Your task to perform on an android device: Open Chrome and go to settings Image 0: 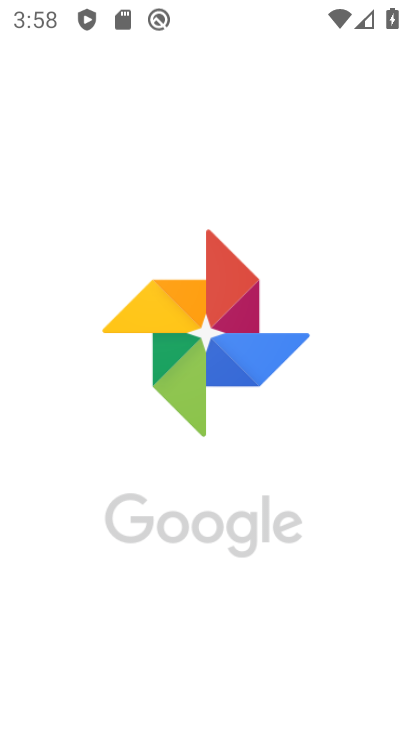
Step 0: drag from (398, 531) to (411, 194)
Your task to perform on an android device: Open Chrome and go to settings Image 1: 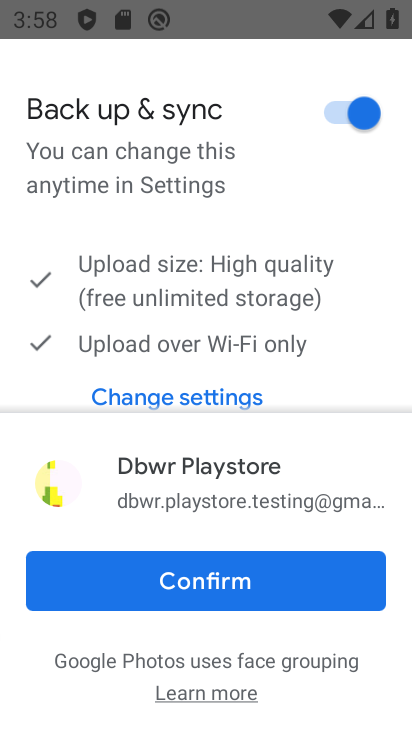
Step 1: press home button
Your task to perform on an android device: Open Chrome and go to settings Image 2: 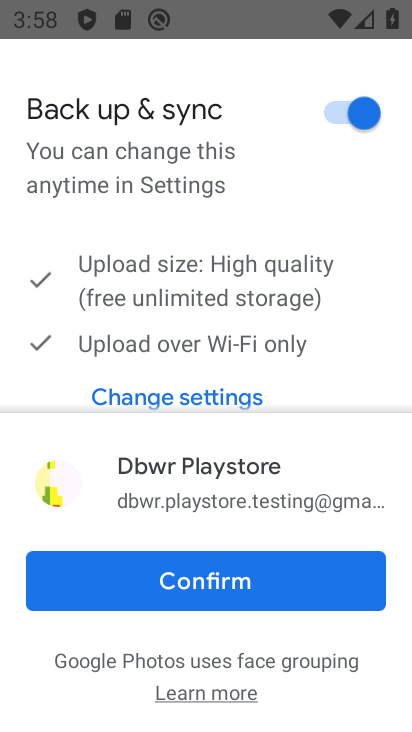
Step 2: drag from (411, 194) to (410, 370)
Your task to perform on an android device: Open Chrome and go to settings Image 3: 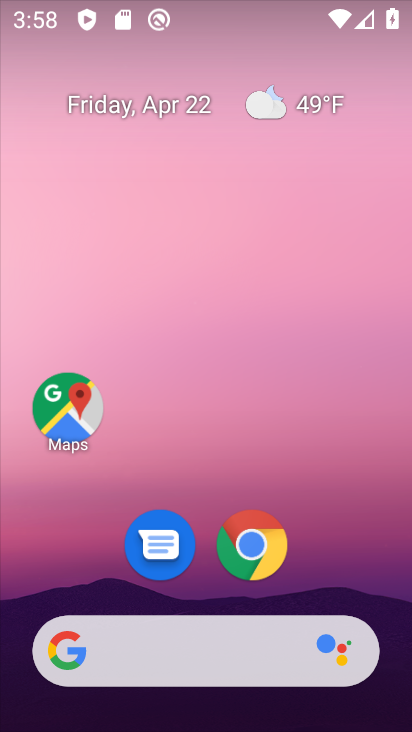
Step 3: drag from (323, 533) to (347, 124)
Your task to perform on an android device: Open Chrome and go to settings Image 4: 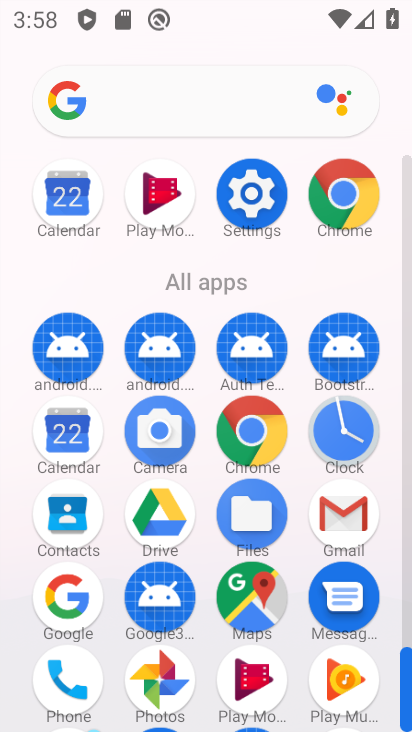
Step 4: click (250, 199)
Your task to perform on an android device: Open Chrome and go to settings Image 5: 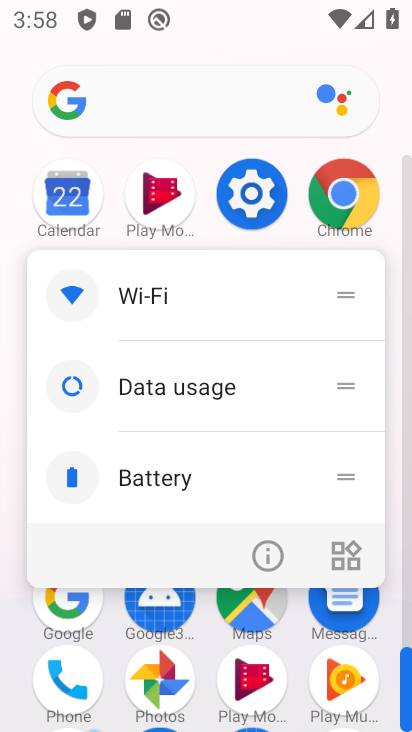
Step 5: click (263, 188)
Your task to perform on an android device: Open Chrome and go to settings Image 6: 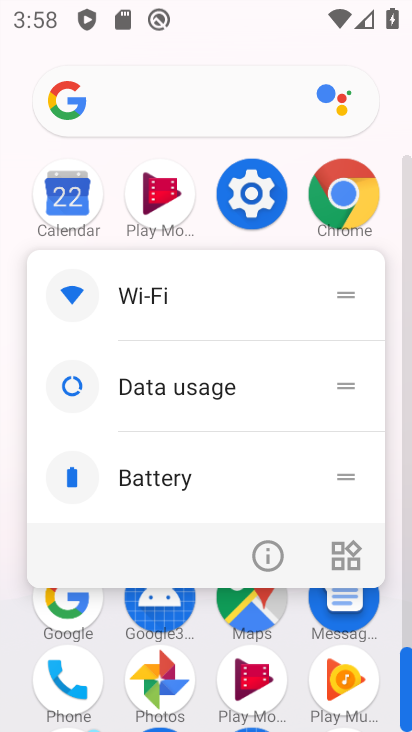
Step 6: press back button
Your task to perform on an android device: Open Chrome and go to settings Image 7: 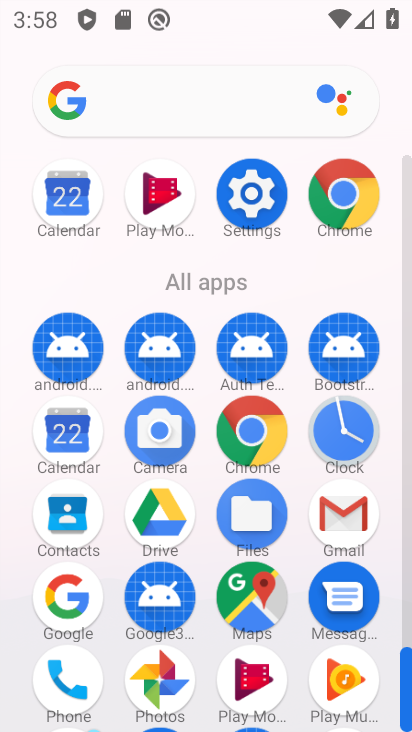
Step 7: click (342, 202)
Your task to perform on an android device: Open Chrome and go to settings Image 8: 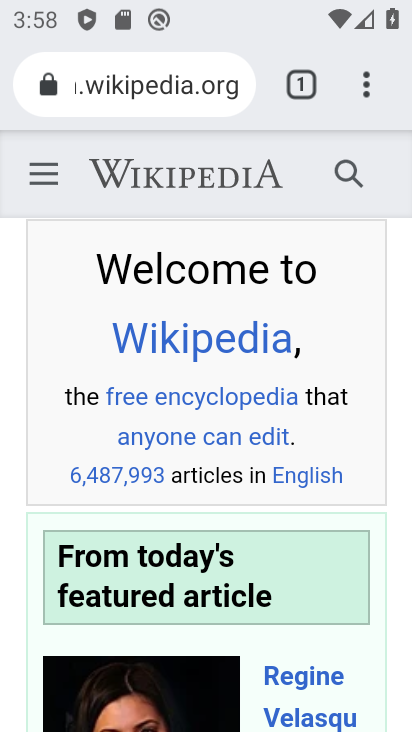
Step 8: drag from (346, 84) to (135, 596)
Your task to perform on an android device: Open Chrome and go to settings Image 9: 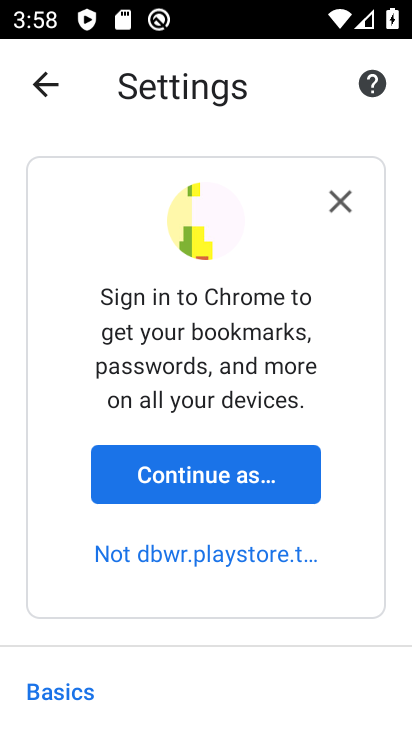
Step 9: click (209, 476)
Your task to perform on an android device: Open Chrome and go to settings Image 10: 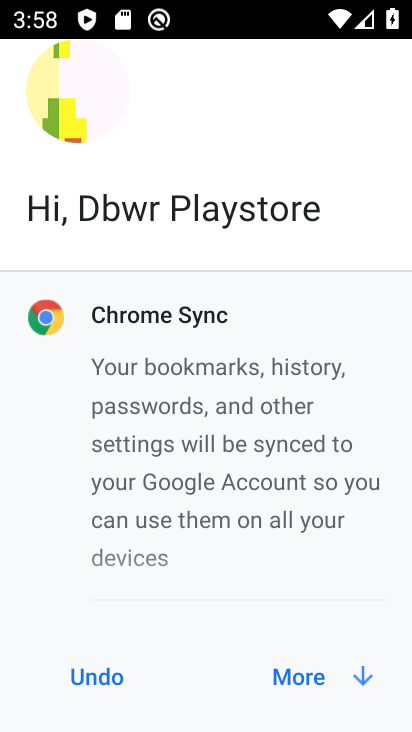
Step 10: click (319, 674)
Your task to perform on an android device: Open Chrome and go to settings Image 11: 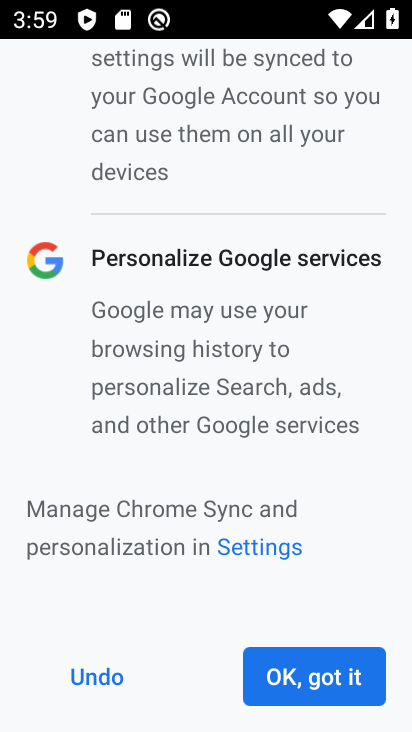
Step 11: click (319, 674)
Your task to perform on an android device: Open Chrome and go to settings Image 12: 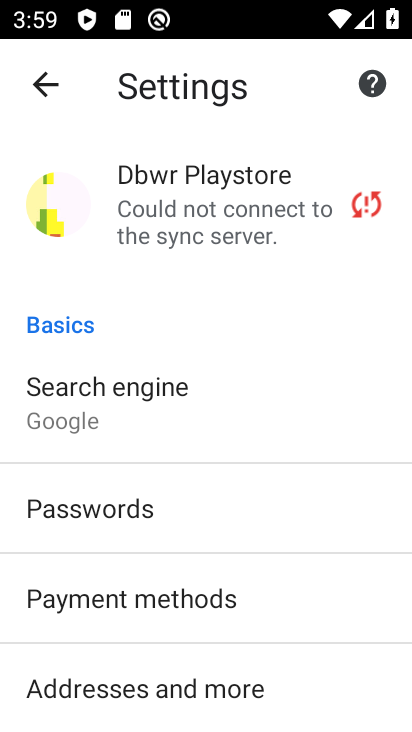
Step 12: task complete